Your task to perform on an android device: What's the weather going to be this weekend? Image 0: 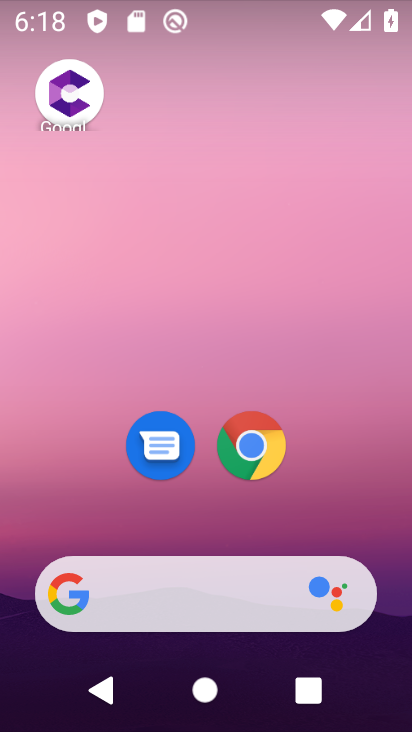
Step 0: drag from (264, 535) to (270, 82)
Your task to perform on an android device: What's the weather going to be this weekend? Image 1: 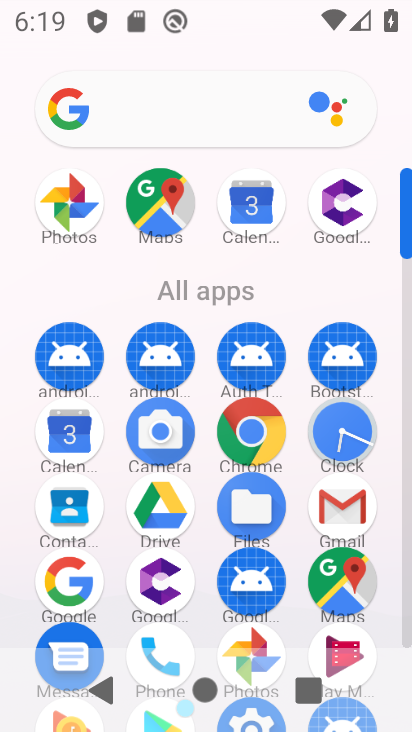
Step 1: click (76, 454)
Your task to perform on an android device: What's the weather going to be this weekend? Image 2: 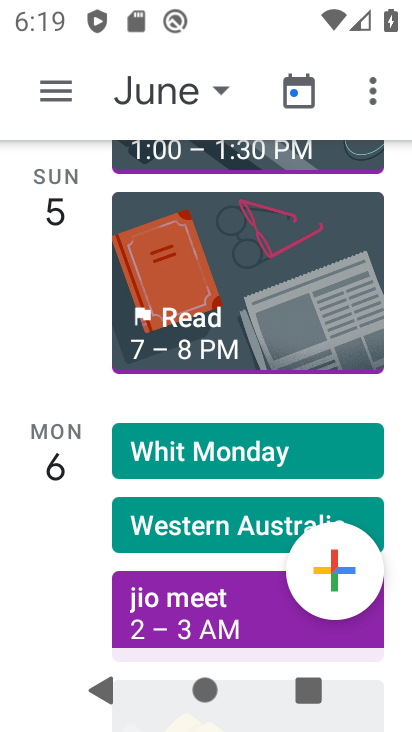
Step 2: press back button
Your task to perform on an android device: What's the weather going to be this weekend? Image 3: 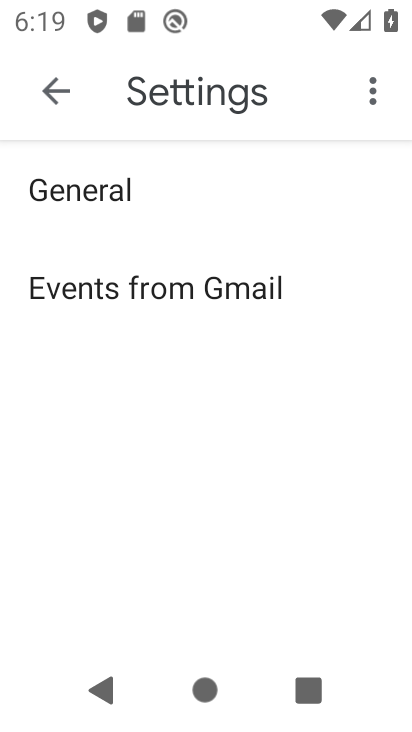
Step 3: press back button
Your task to perform on an android device: What's the weather going to be this weekend? Image 4: 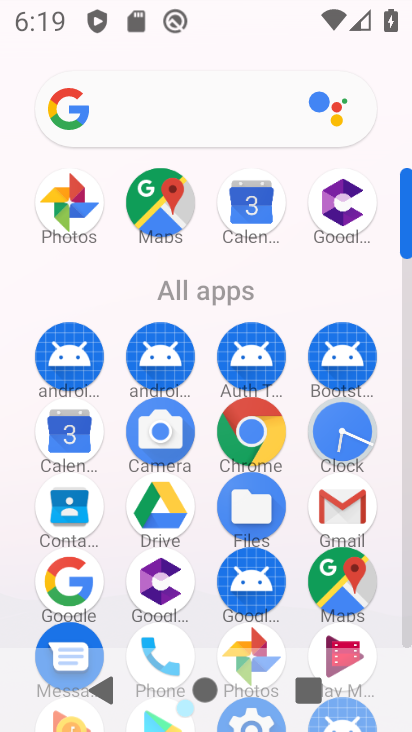
Step 4: click (76, 581)
Your task to perform on an android device: What's the weather going to be this weekend? Image 5: 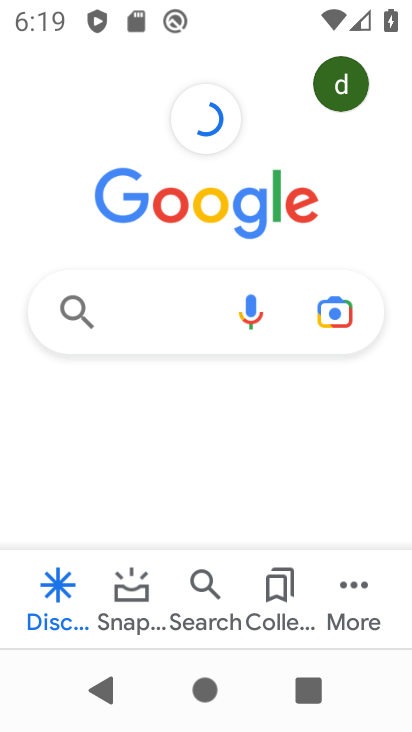
Step 5: click (84, 309)
Your task to perform on an android device: What's the weather going to be this weekend? Image 6: 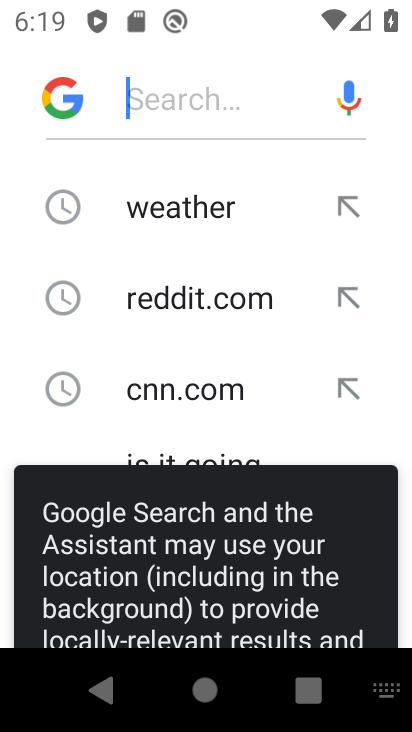
Step 6: click (175, 197)
Your task to perform on an android device: What's the weather going to be this weekend? Image 7: 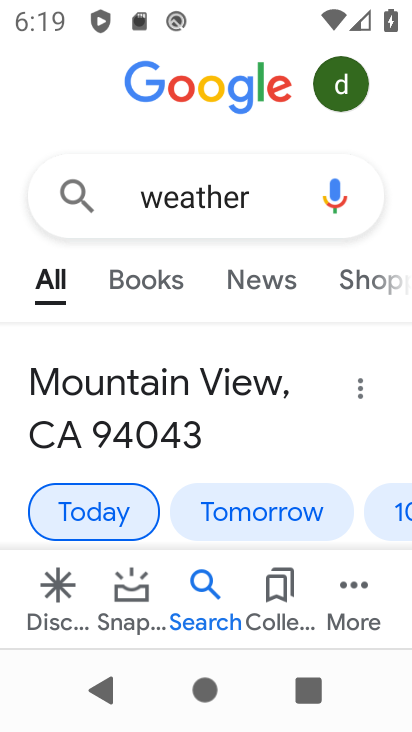
Step 7: click (391, 518)
Your task to perform on an android device: What's the weather going to be this weekend? Image 8: 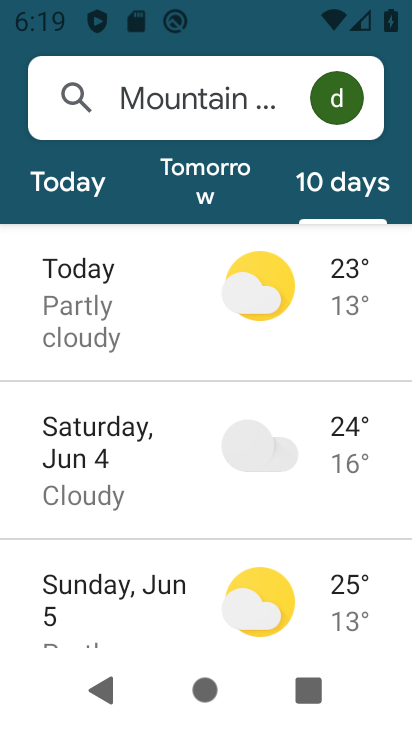
Step 8: task complete